Your task to perform on an android device: empty trash in google photos Image 0: 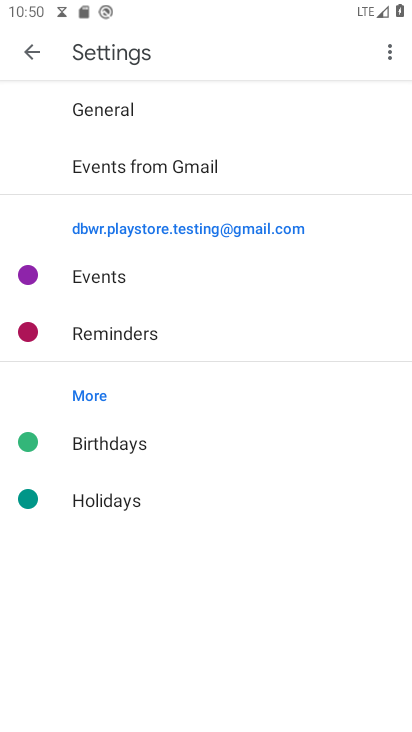
Step 0: press home button
Your task to perform on an android device: empty trash in google photos Image 1: 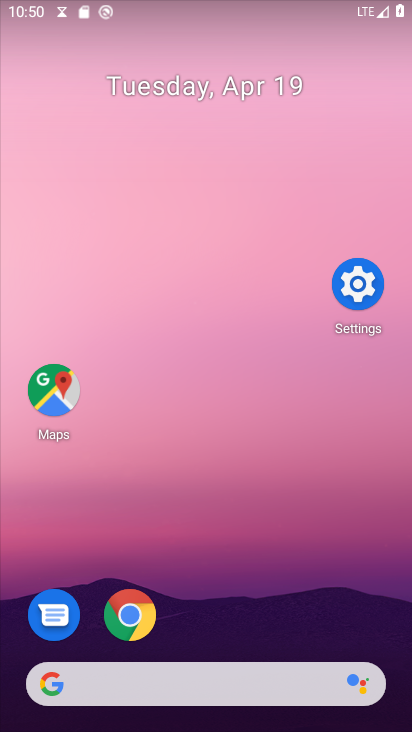
Step 1: drag from (201, 592) to (222, 282)
Your task to perform on an android device: empty trash in google photos Image 2: 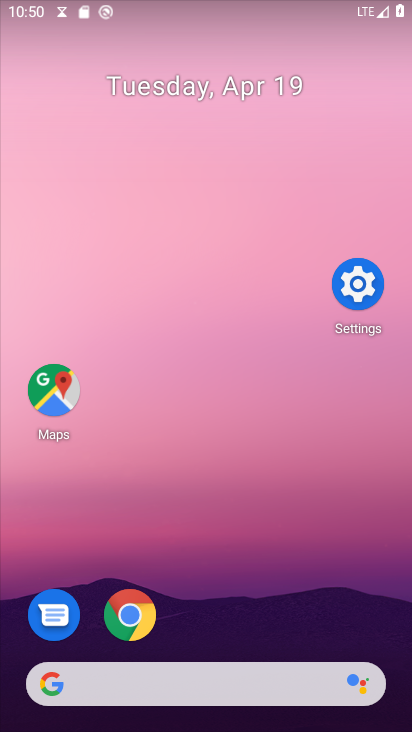
Step 2: drag from (234, 589) to (221, 91)
Your task to perform on an android device: empty trash in google photos Image 3: 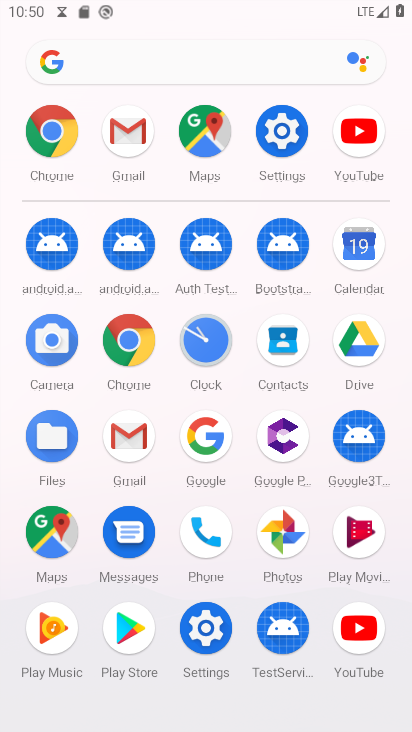
Step 3: click (286, 532)
Your task to perform on an android device: empty trash in google photos Image 4: 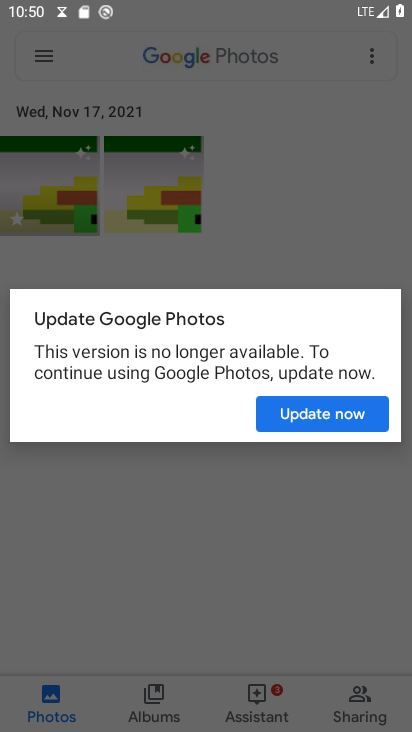
Step 4: click (301, 413)
Your task to perform on an android device: empty trash in google photos Image 5: 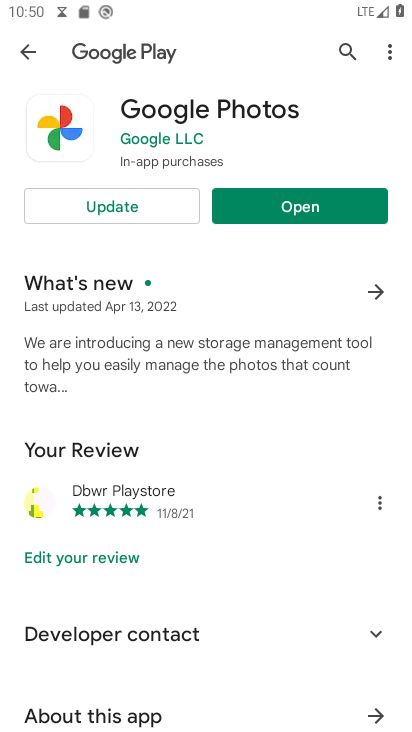
Step 5: click (294, 216)
Your task to perform on an android device: empty trash in google photos Image 6: 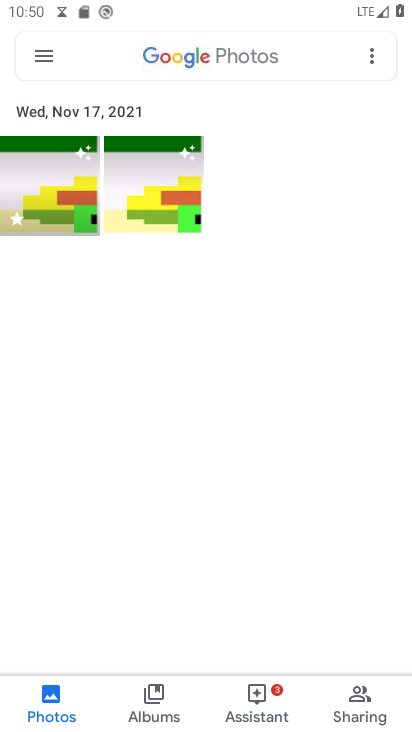
Step 6: click (34, 57)
Your task to perform on an android device: empty trash in google photos Image 7: 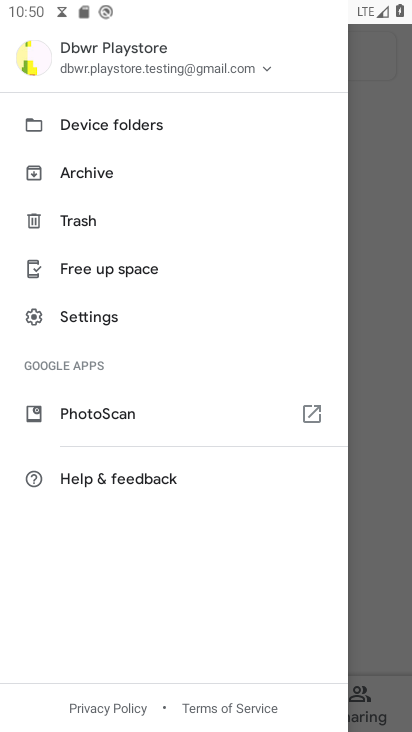
Step 7: click (100, 215)
Your task to perform on an android device: empty trash in google photos Image 8: 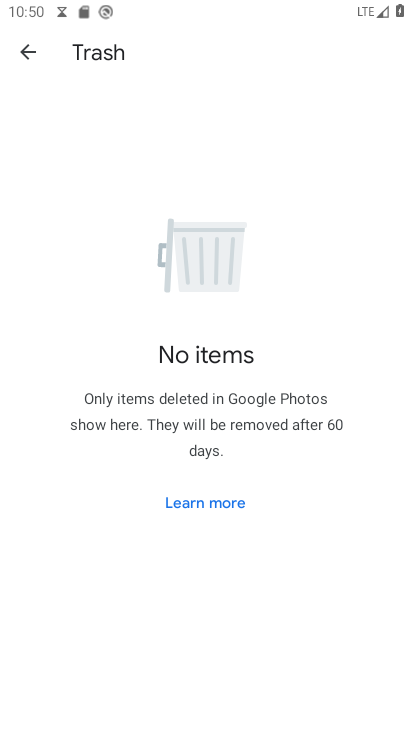
Step 8: task complete